Your task to perform on an android device: Search for flights from Mexico city to Boston Image 0: 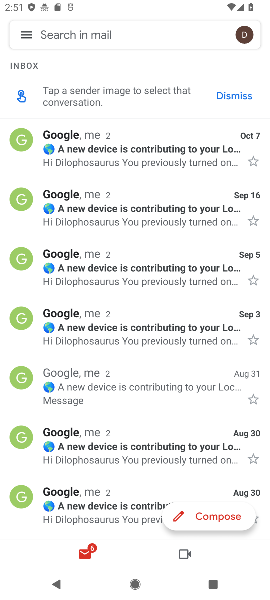
Step 0: press home button
Your task to perform on an android device: Search for flights from Mexico city to Boston Image 1: 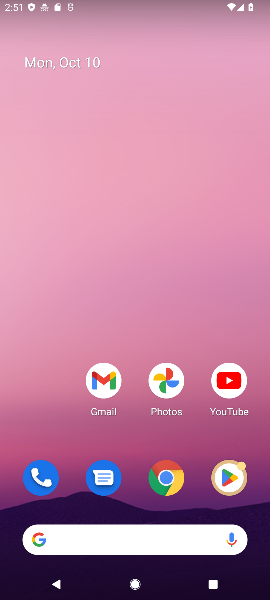
Step 1: click (161, 475)
Your task to perform on an android device: Search for flights from Mexico city to Boston Image 2: 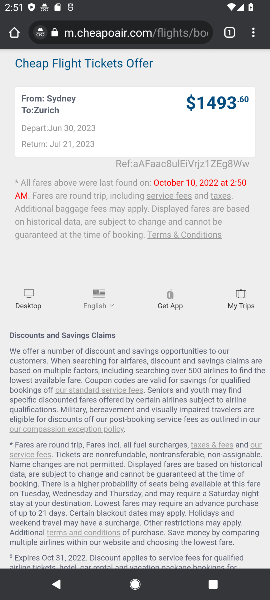
Step 2: click (148, 36)
Your task to perform on an android device: Search for flights from Mexico city to Boston Image 3: 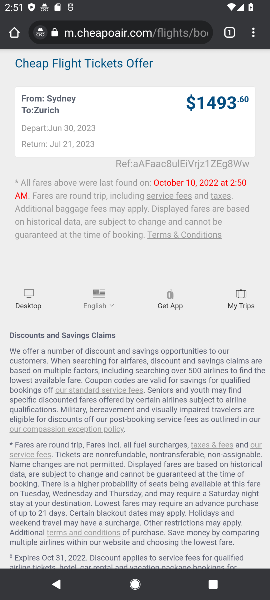
Step 3: click (148, 36)
Your task to perform on an android device: Search for flights from Mexico city to Boston Image 4: 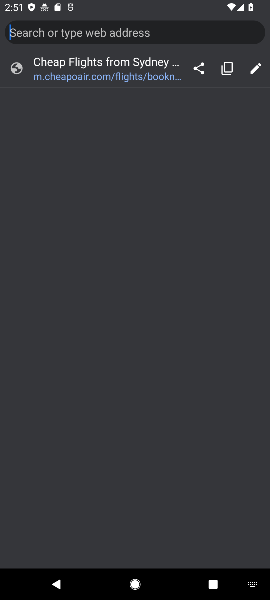
Step 4: type "Search for flights from Mexico city to Boston"
Your task to perform on an android device: Search for flights from Mexico city to Boston Image 5: 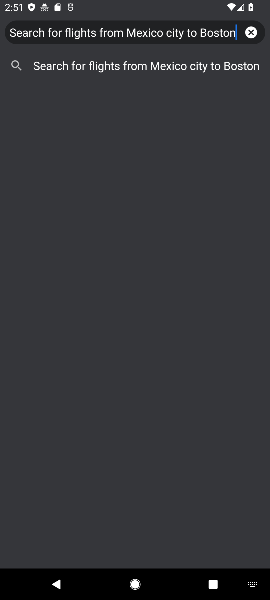
Step 5: click (140, 74)
Your task to perform on an android device: Search for flights from Mexico city to Boston Image 6: 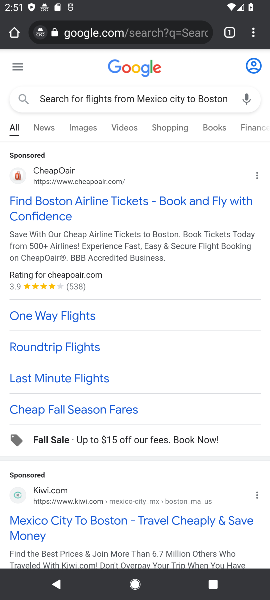
Step 6: drag from (61, 528) to (83, 262)
Your task to perform on an android device: Search for flights from Mexico city to Boston Image 7: 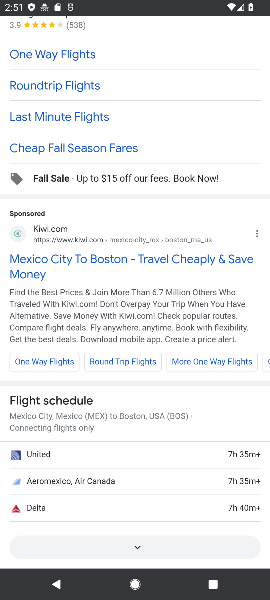
Step 7: click (94, 414)
Your task to perform on an android device: Search for flights from Mexico city to Boston Image 8: 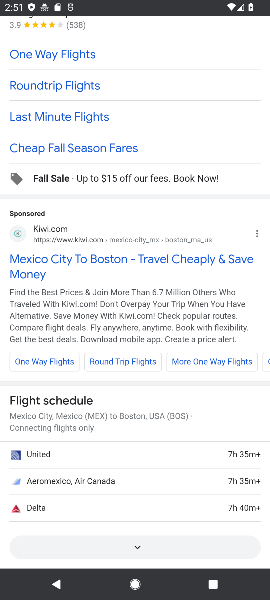
Step 8: drag from (94, 414) to (113, 46)
Your task to perform on an android device: Search for flights from Mexico city to Boston Image 9: 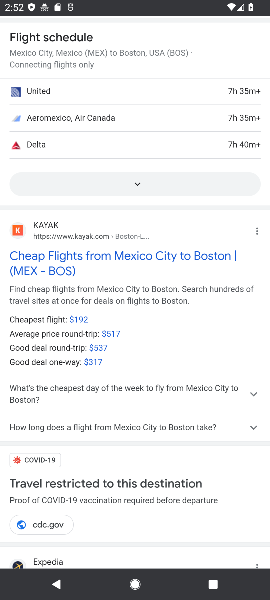
Step 9: click (121, 186)
Your task to perform on an android device: Search for flights from Mexico city to Boston Image 10: 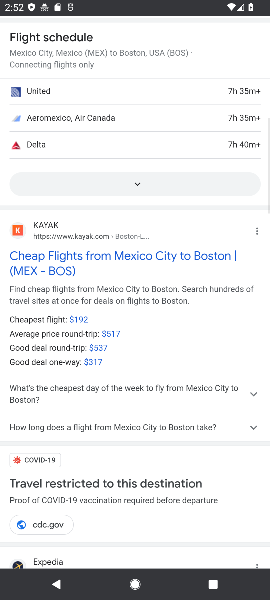
Step 10: click (133, 183)
Your task to perform on an android device: Search for flights from Mexico city to Boston Image 11: 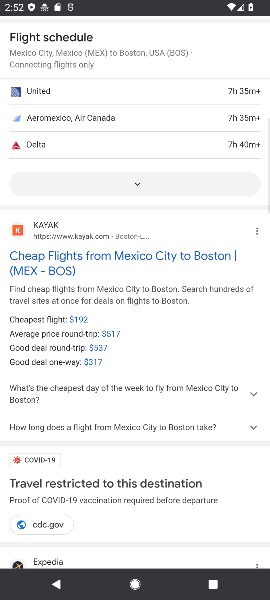
Step 11: click (113, 61)
Your task to perform on an android device: Search for flights from Mexico city to Boston Image 12: 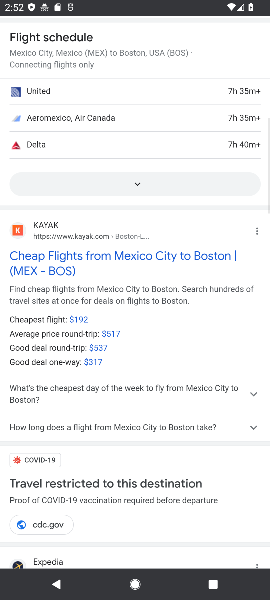
Step 12: click (113, 61)
Your task to perform on an android device: Search for flights from Mexico city to Boston Image 13: 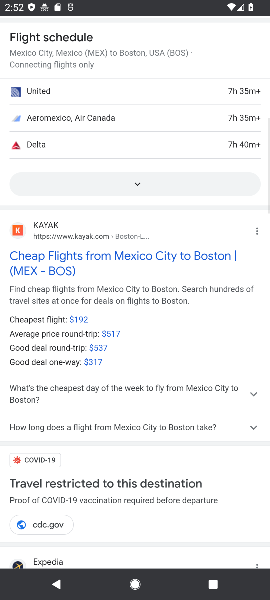
Step 13: click (113, 61)
Your task to perform on an android device: Search for flights from Mexico city to Boston Image 14: 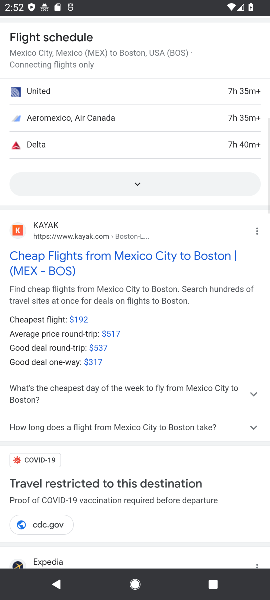
Step 14: task complete